Your task to perform on an android device: Clear the shopping cart on walmart.com. Image 0: 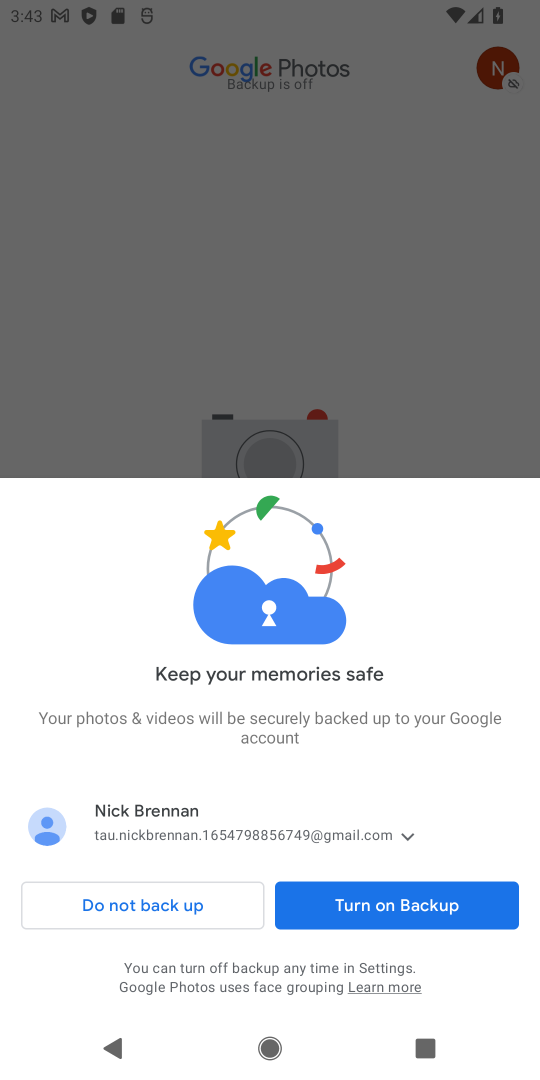
Step 0: press home button
Your task to perform on an android device: Clear the shopping cart on walmart.com. Image 1: 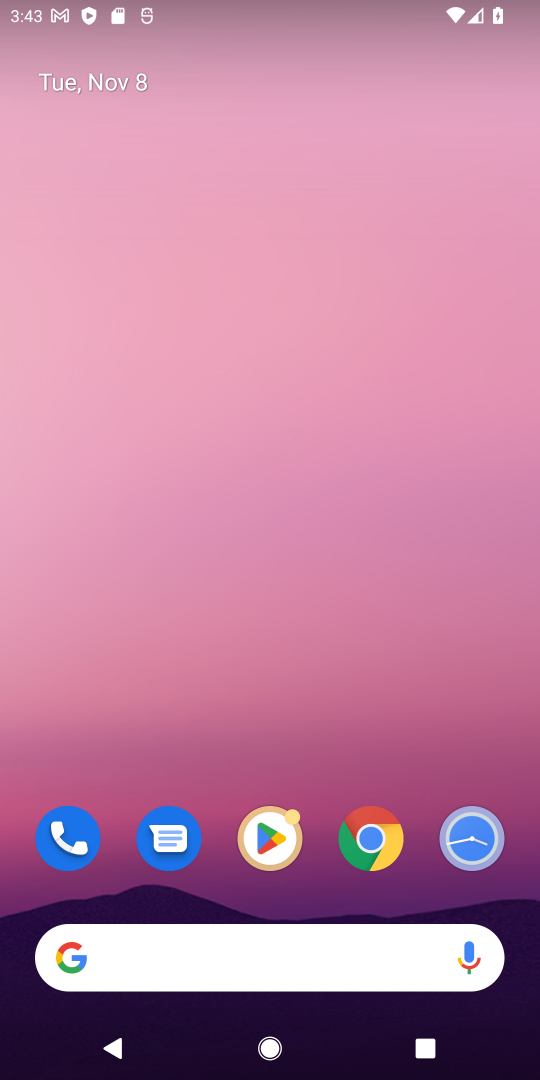
Step 1: click (394, 839)
Your task to perform on an android device: Clear the shopping cart on walmart.com. Image 2: 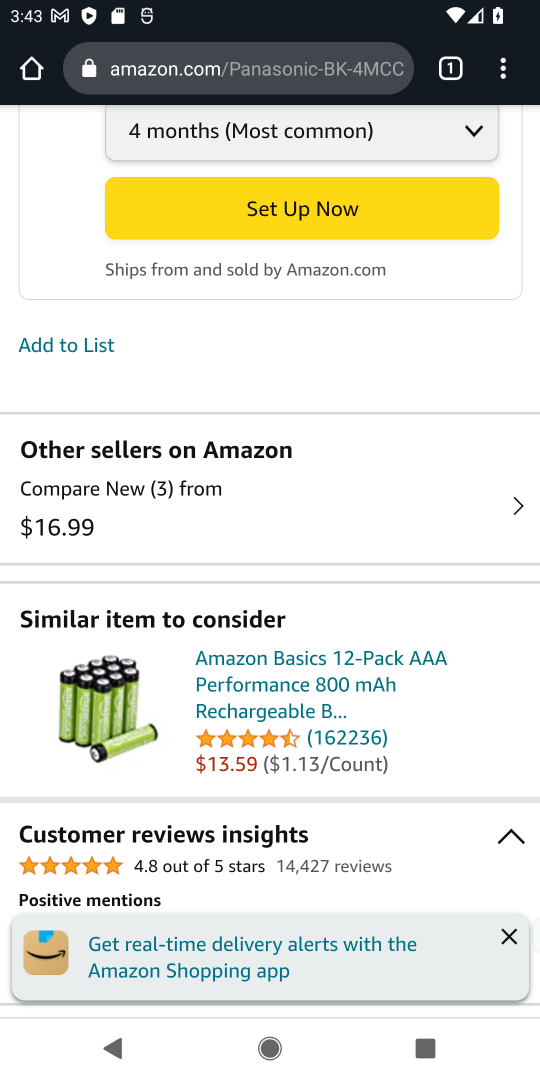
Step 2: click (216, 66)
Your task to perform on an android device: Clear the shopping cart on walmart.com. Image 3: 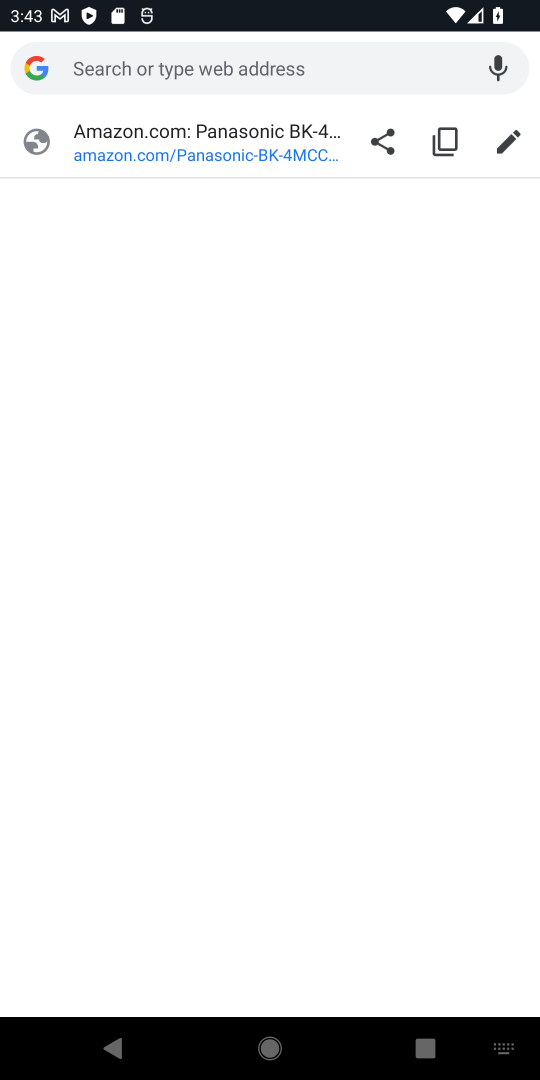
Step 3: type "walmart.com"
Your task to perform on an android device: Clear the shopping cart on walmart.com. Image 4: 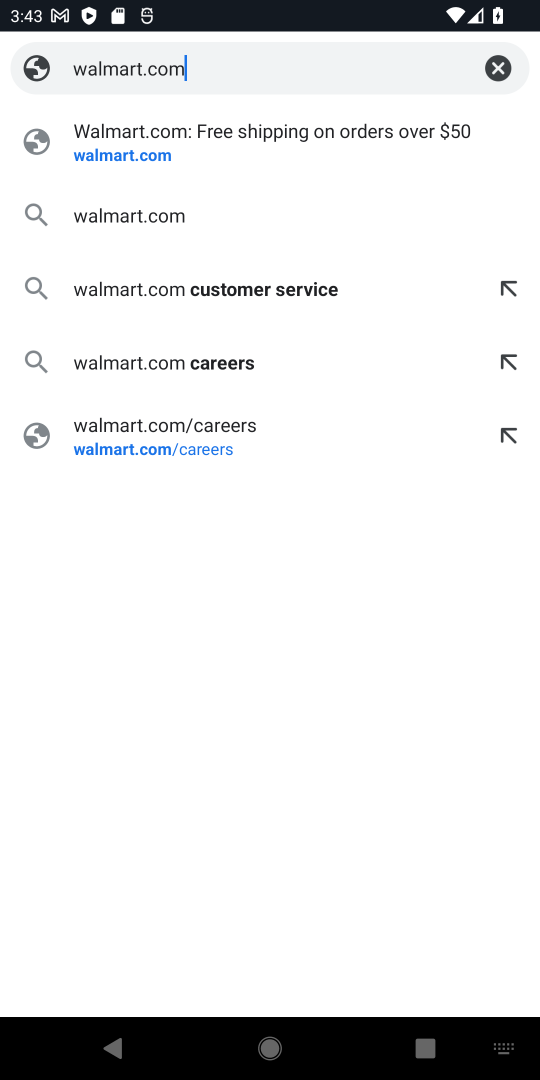
Step 4: press enter
Your task to perform on an android device: Clear the shopping cart on walmart.com. Image 5: 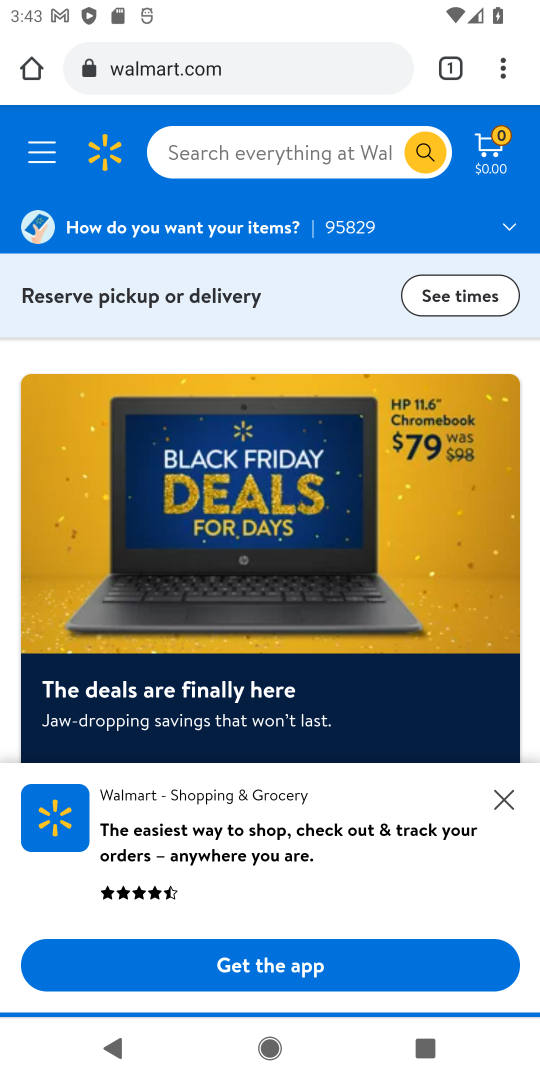
Step 5: click (497, 156)
Your task to perform on an android device: Clear the shopping cart on walmart.com. Image 6: 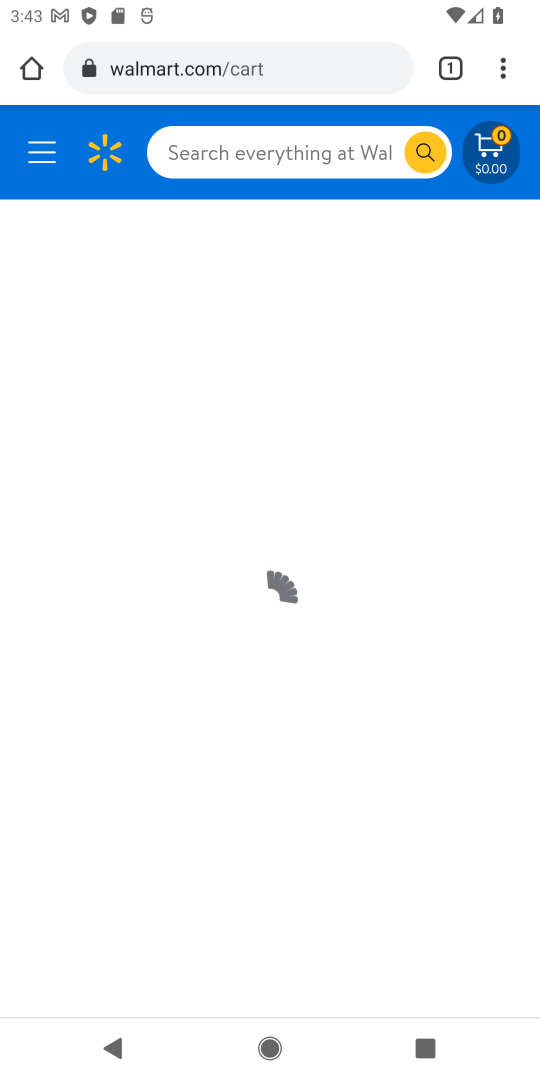
Step 6: click (504, 159)
Your task to perform on an android device: Clear the shopping cart on walmart.com. Image 7: 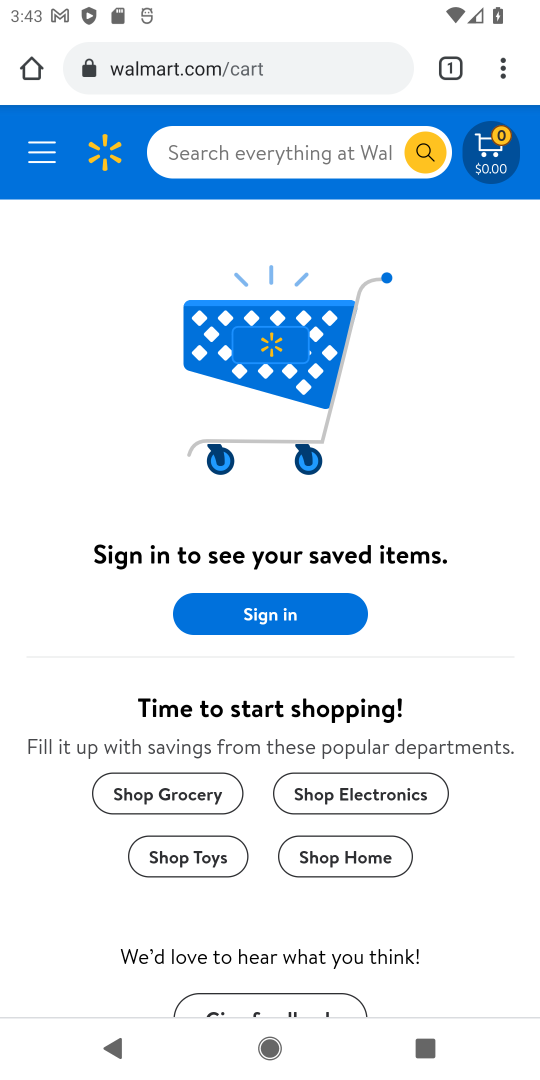
Step 7: task complete